Your task to perform on an android device: toggle improve location accuracy Image 0: 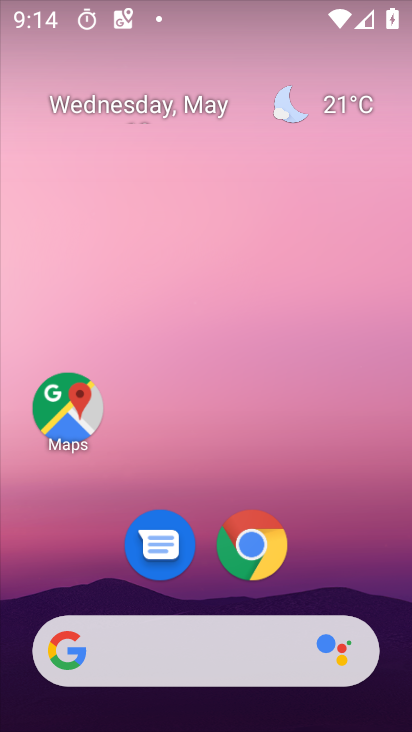
Step 0: drag from (323, 555) to (352, 5)
Your task to perform on an android device: toggle improve location accuracy Image 1: 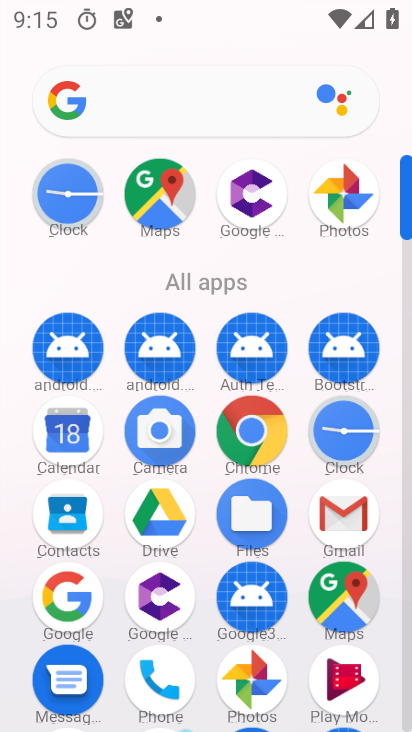
Step 1: drag from (195, 561) to (201, 154)
Your task to perform on an android device: toggle improve location accuracy Image 2: 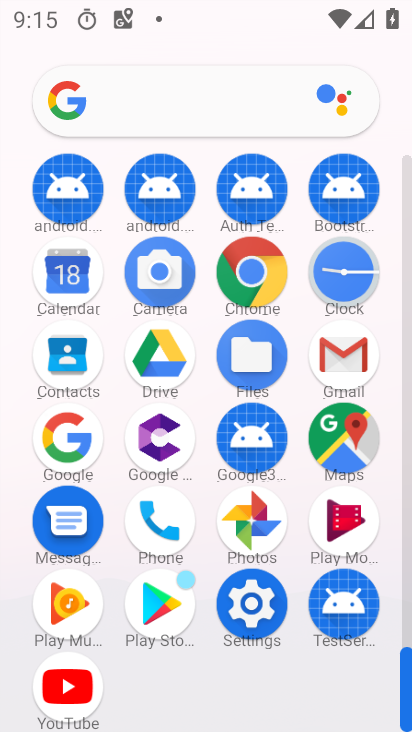
Step 2: click (253, 599)
Your task to perform on an android device: toggle improve location accuracy Image 3: 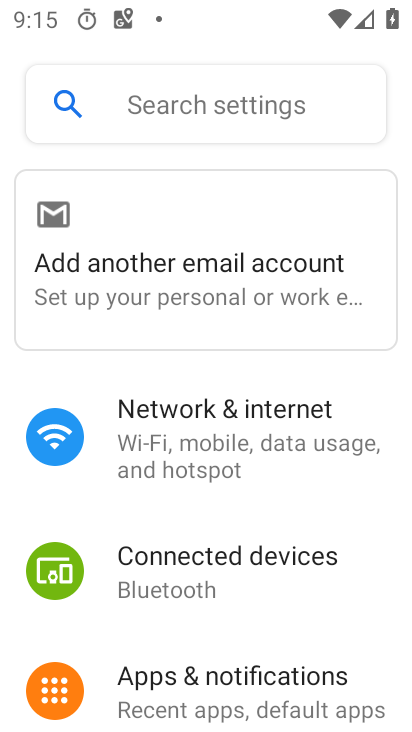
Step 3: drag from (251, 677) to (274, 277)
Your task to perform on an android device: toggle improve location accuracy Image 4: 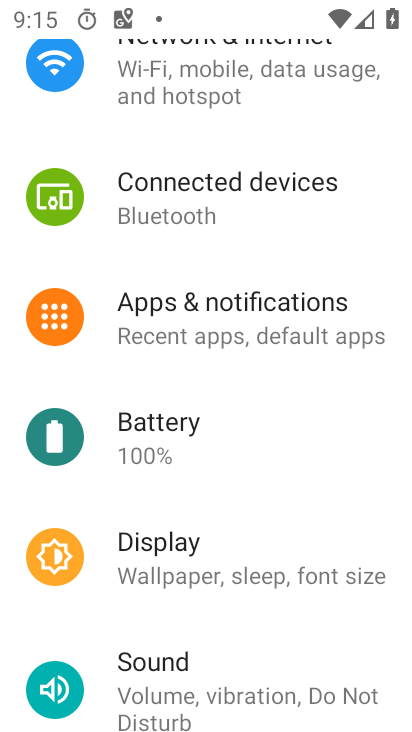
Step 4: drag from (226, 662) to (200, 486)
Your task to perform on an android device: toggle improve location accuracy Image 5: 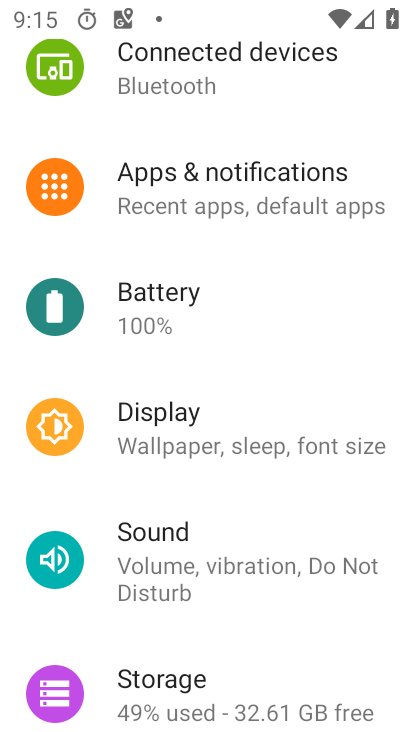
Step 5: drag from (187, 700) to (207, 463)
Your task to perform on an android device: toggle improve location accuracy Image 6: 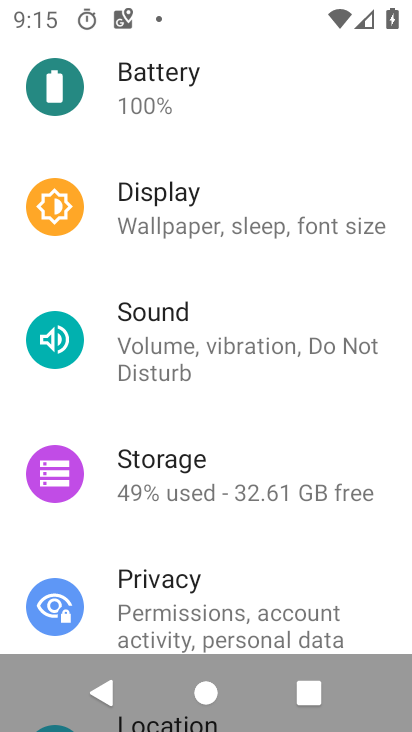
Step 6: drag from (206, 610) to (205, 293)
Your task to perform on an android device: toggle improve location accuracy Image 7: 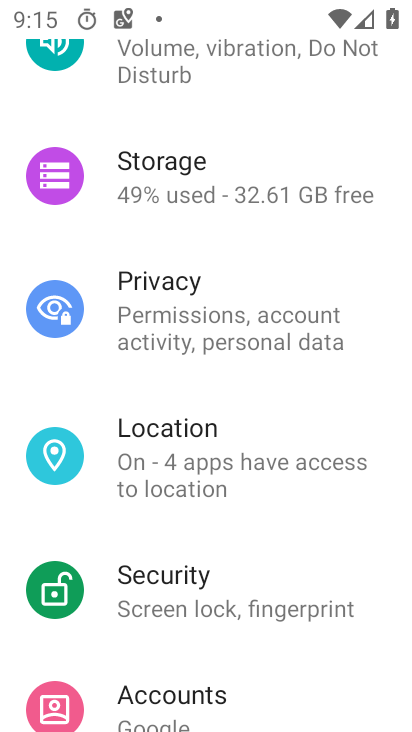
Step 7: click (190, 460)
Your task to perform on an android device: toggle improve location accuracy Image 8: 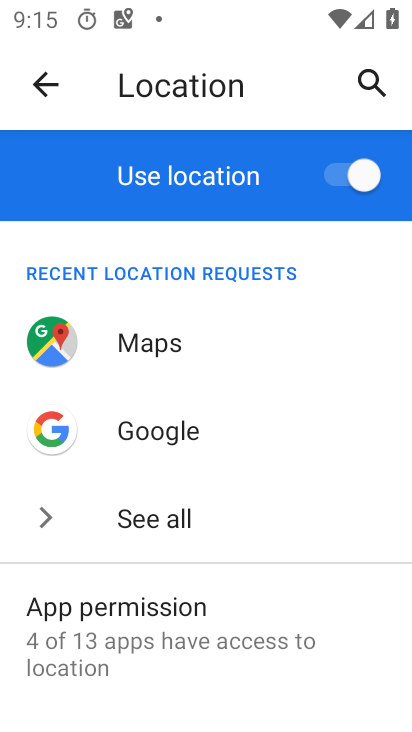
Step 8: drag from (249, 653) to (263, 255)
Your task to perform on an android device: toggle improve location accuracy Image 9: 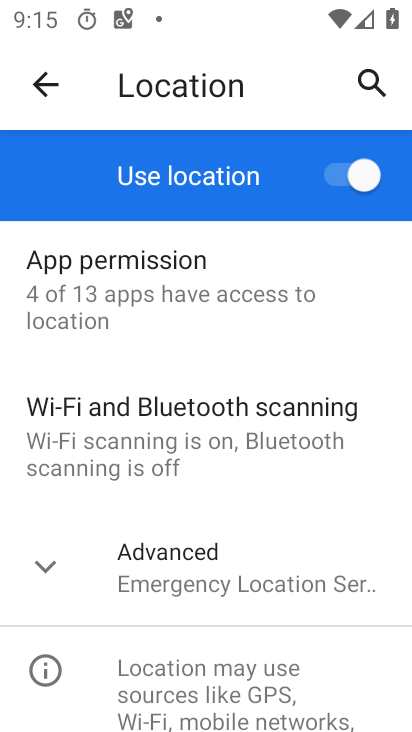
Step 9: click (189, 569)
Your task to perform on an android device: toggle improve location accuracy Image 10: 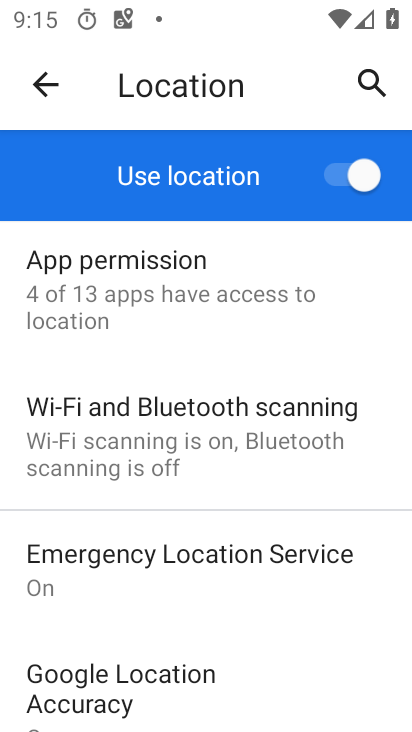
Step 10: drag from (217, 645) to (256, 257)
Your task to perform on an android device: toggle improve location accuracy Image 11: 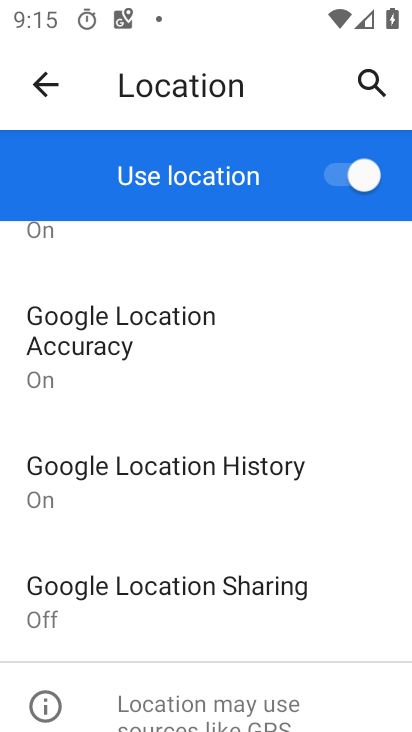
Step 11: click (236, 336)
Your task to perform on an android device: toggle improve location accuracy Image 12: 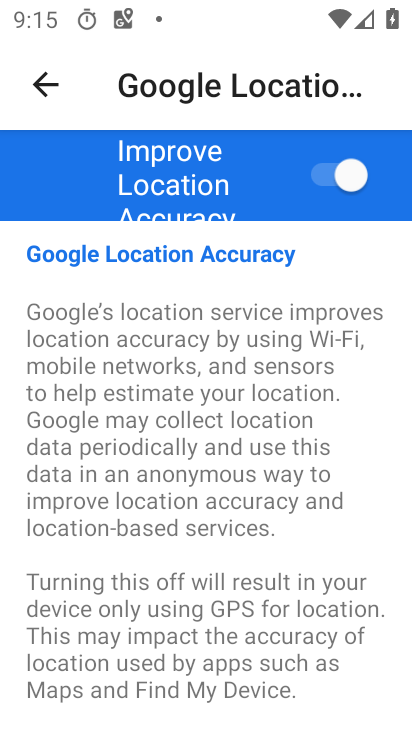
Step 12: click (316, 181)
Your task to perform on an android device: toggle improve location accuracy Image 13: 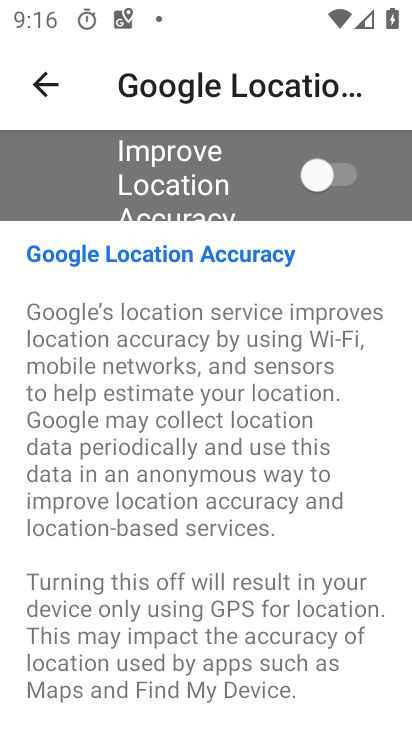
Step 13: task complete